Your task to perform on an android device: Open Amazon Image 0: 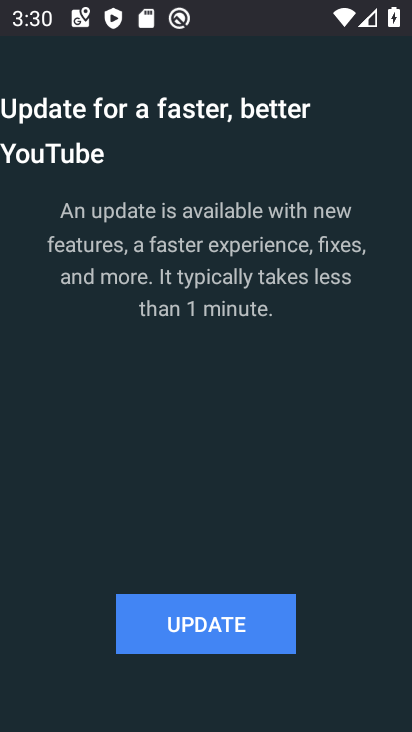
Step 0: press home button
Your task to perform on an android device: Open Amazon Image 1: 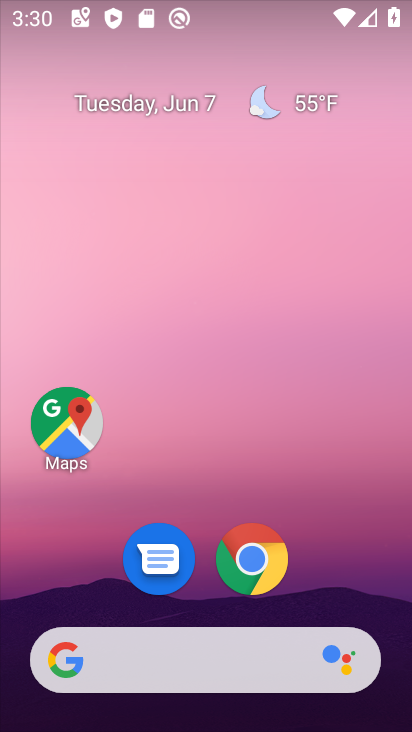
Step 1: click (254, 558)
Your task to perform on an android device: Open Amazon Image 2: 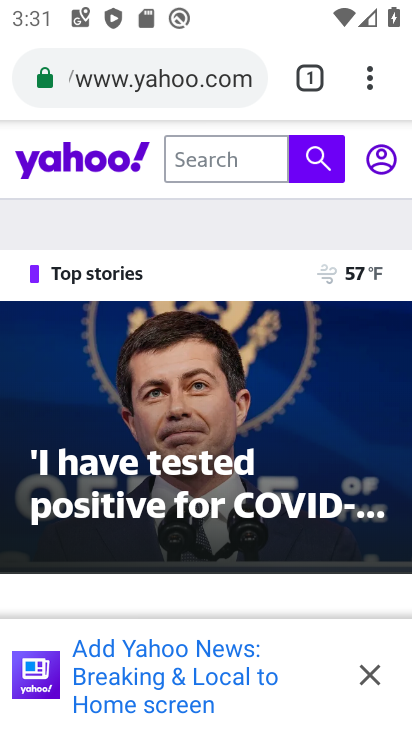
Step 2: click (372, 86)
Your task to perform on an android device: Open Amazon Image 3: 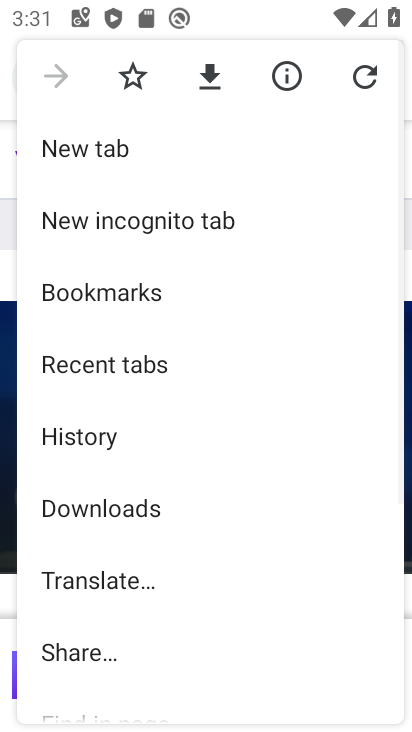
Step 3: click (97, 141)
Your task to perform on an android device: Open Amazon Image 4: 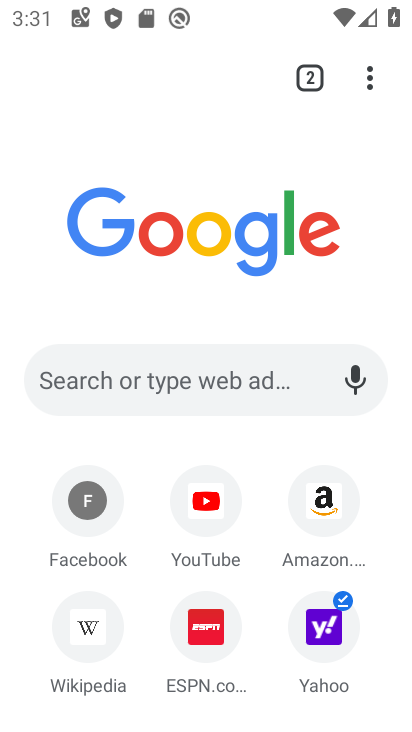
Step 4: click (332, 511)
Your task to perform on an android device: Open Amazon Image 5: 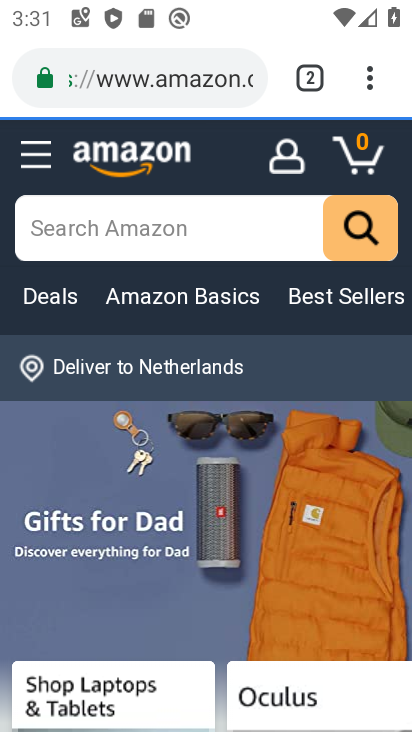
Step 5: task complete